Your task to perform on an android device: set the stopwatch Image 0: 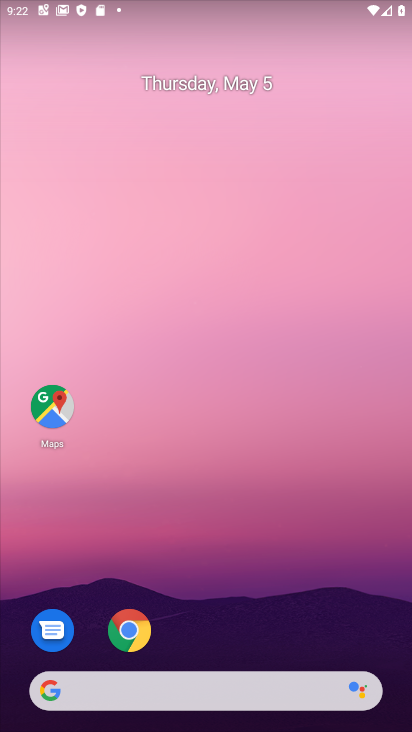
Step 0: drag from (231, 582) to (74, 131)
Your task to perform on an android device: set the stopwatch Image 1: 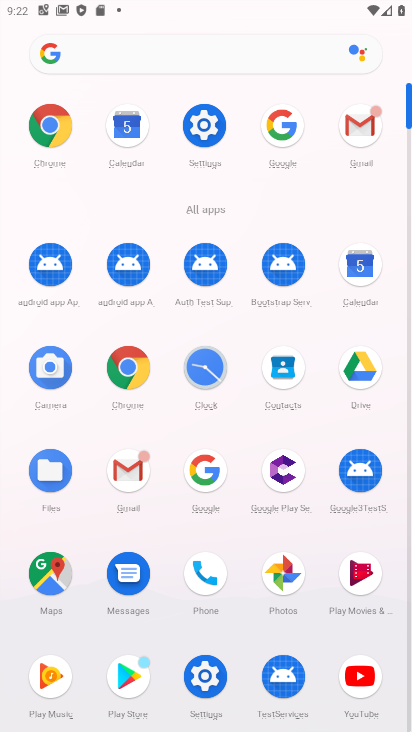
Step 1: click (198, 367)
Your task to perform on an android device: set the stopwatch Image 2: 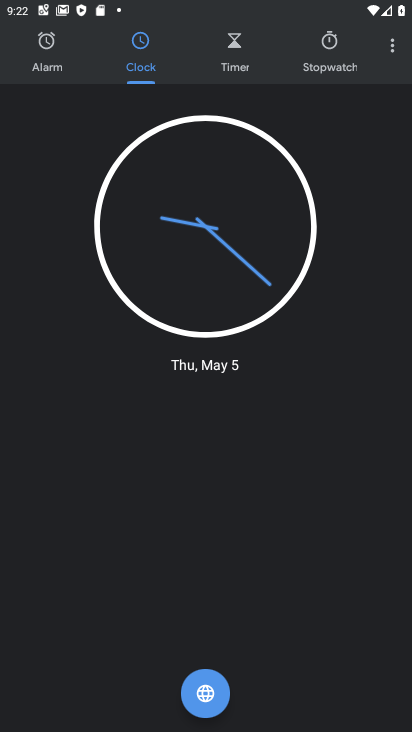
Step 2: click (320, 42)
Your task to perform on an android device: set the stopwatch Image 3: 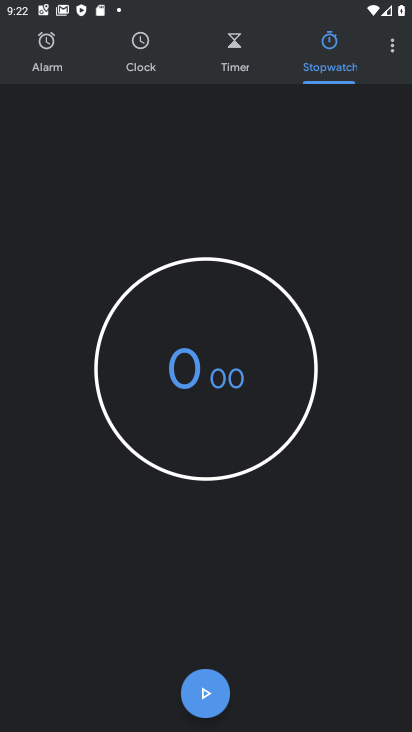
Step 3: click (213, 703)
Your task to perform on an android device: set the stopwatch Image 4: 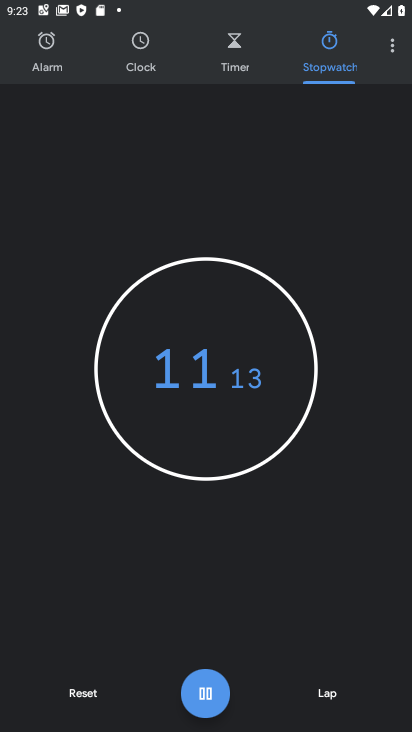
Step 4: click (212, 696)
Your task to perform on an android device: set the stopwatch Image 5: 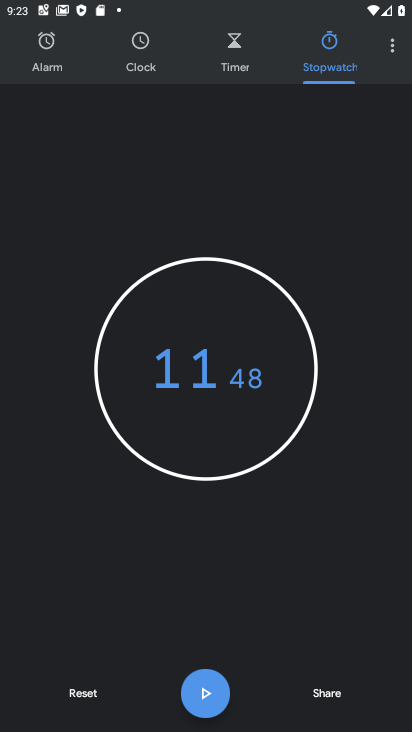
Step 5: task complete